Your task to perform on an android device: create a new album in the google photos Image 0: 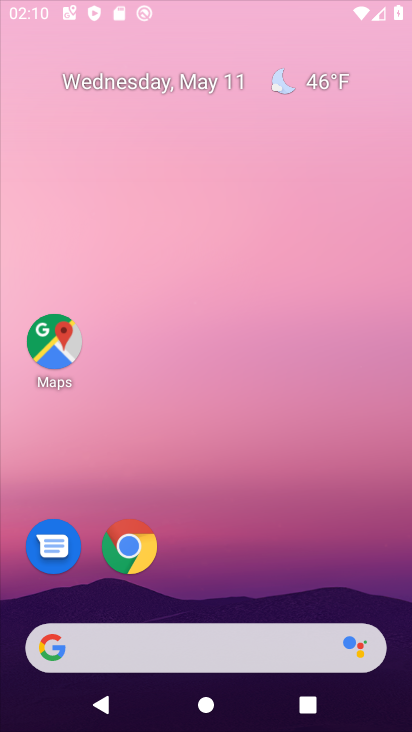
Step 0: click (296, 333)
Your task to perform on an android device: create a new album in the google photos Image 1: 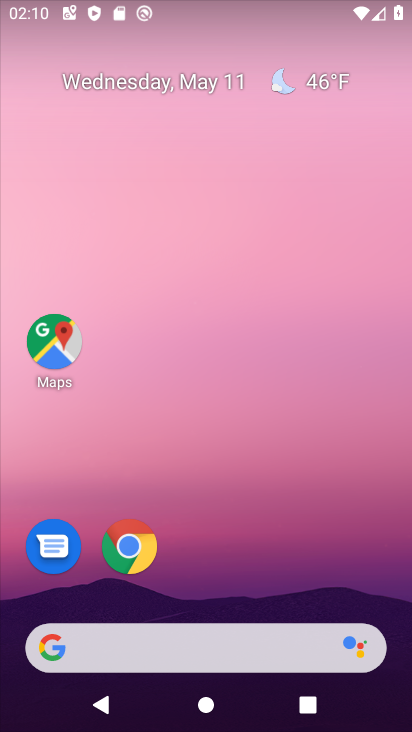
Step 1: drag from (185, 560) to (232, 271)
Your task to perform on an android device: create a new album in the google photos Image 2: 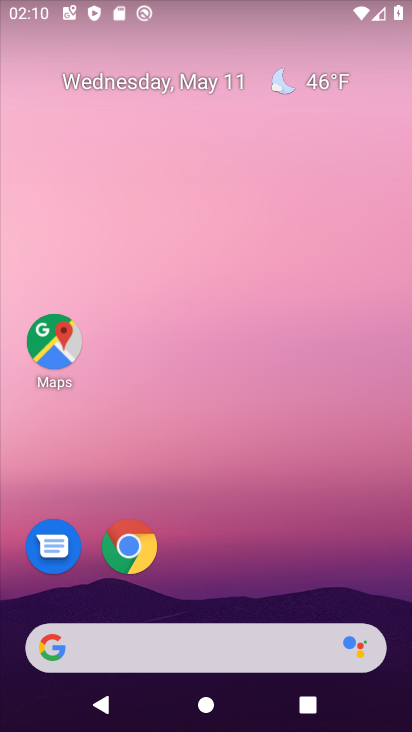
Step 2: drag from (214, 572) to (227, 275)
Your task to perform on an android device: create a new album in the google photos Image 3: 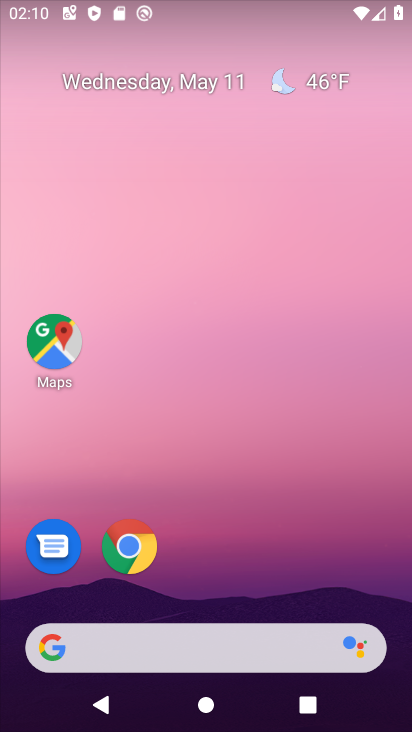
Step 3: drag from (217, 524) to (296, 156)
Your task to perform on an android device: create a new album in the google photos Image 4: 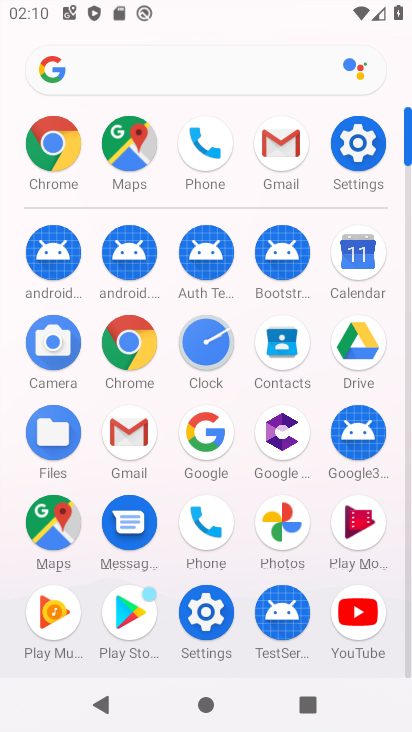
Step 4: click (293, 520)
Your task to perform on an android device: create a new album in the google photos Image 5: 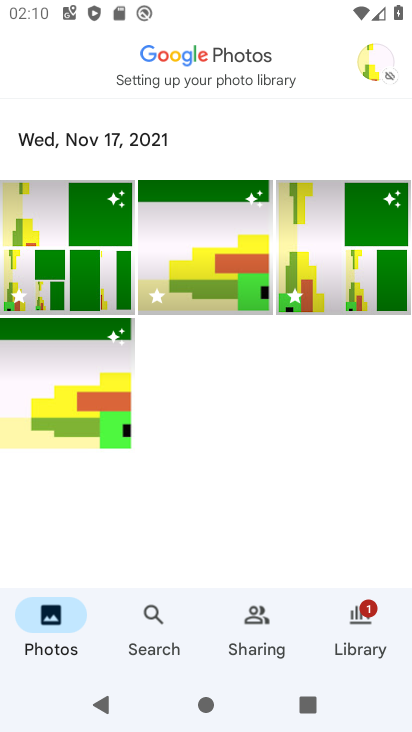
Step 5: click (350, 618)
Your task to perform on an android device: create a new album in the google photos Image 6: 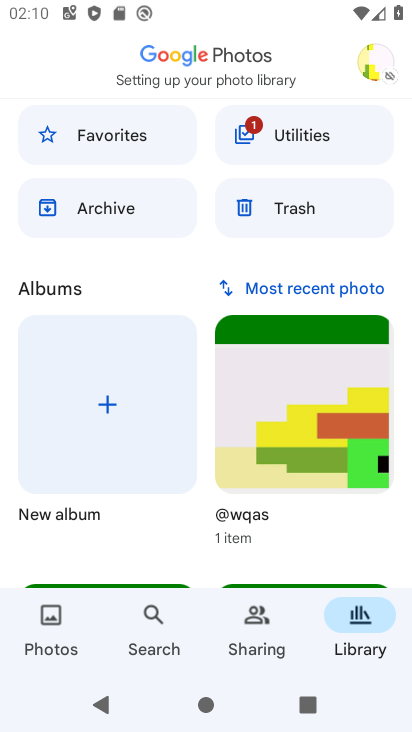
Step 6: drag from (202, 565) to (175, 258)
Your task to perform on an android device: create a new album in the google photos Image 7: 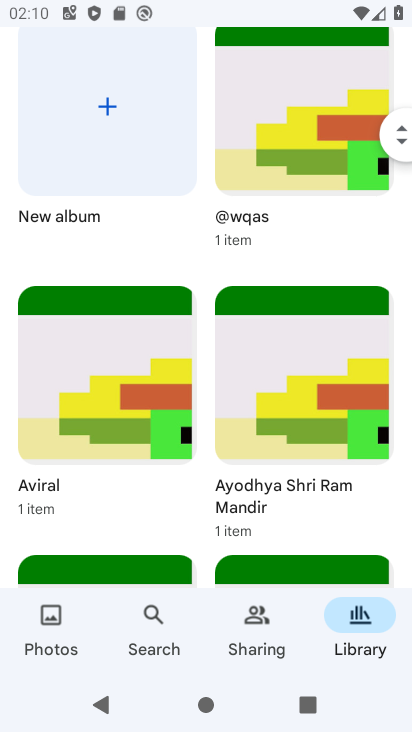
Step 7: drag from (177, 199) to (212, 539)
Your task to perform on an android device: create a new album in the google photos Image 8: 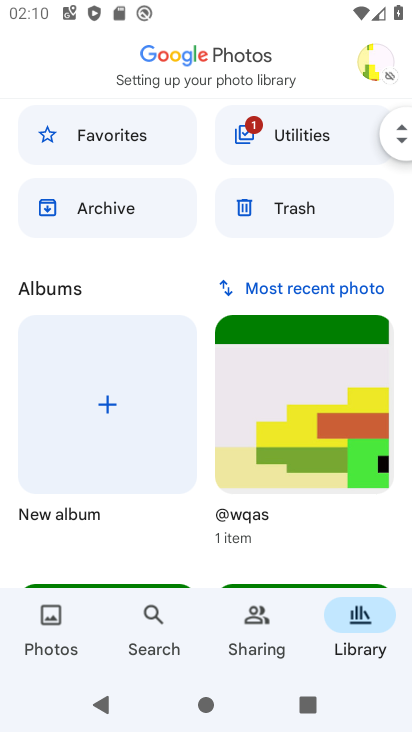
Step 8: click (91, 403)
Your task to perform on an android device: create a new album in the google photos Image 9: 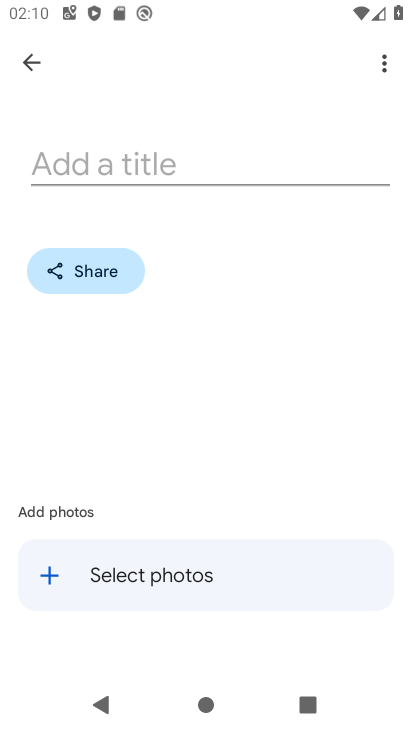
Step 9: click (89, 166)
Your task to perform on an android device: create a new album in the google photos Image 10: 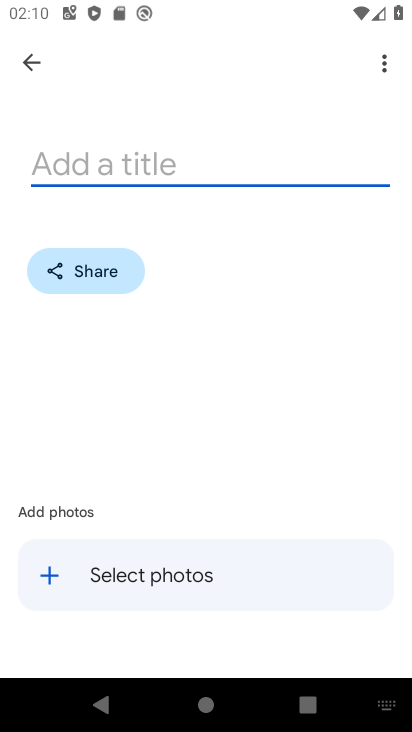
Step 10: type "msjsl"
Your task to perform on an android device: create a new album in the google photos Image 11: 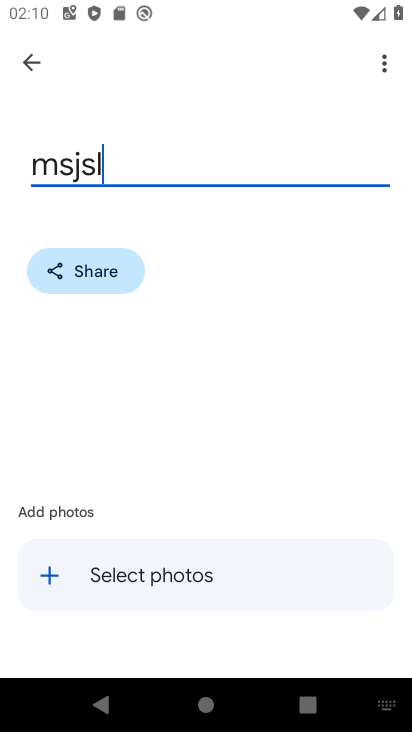
Step 11: click (47, 598)
Your task to perform on an android device: create a new album in the google photos Image 12: 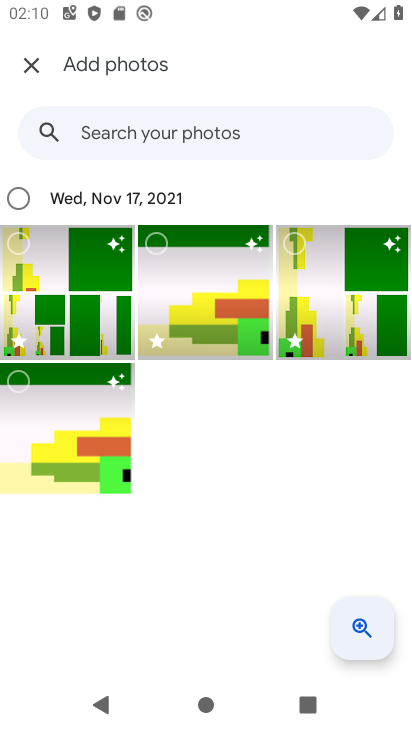
Step 12: click (116, 292)
Your task to perform on an android device: create a new album in the google photos Image 13: 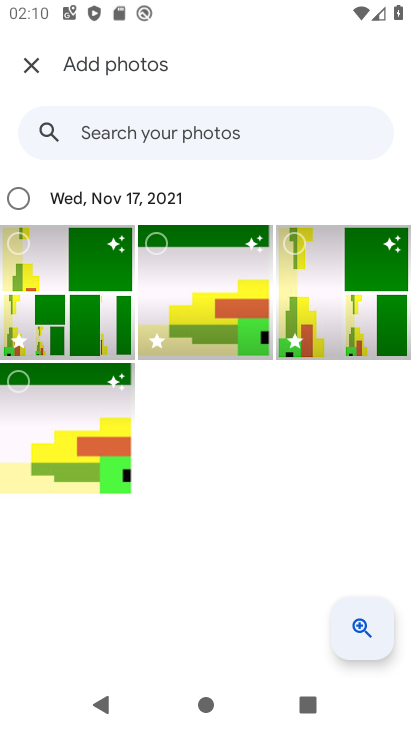
Step 13: click (225, 295)
Your task to perform on an android device: create a new album in the google photos Image 14: 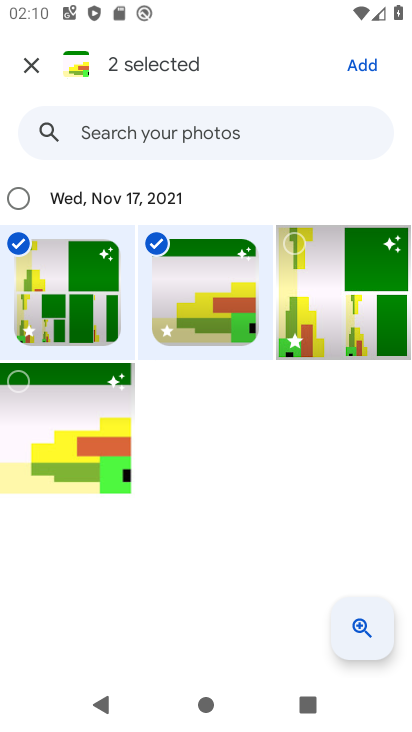
Step 14: click (353, 64)
Your task to perform on an android device: create a new album in the google photos Image 15: 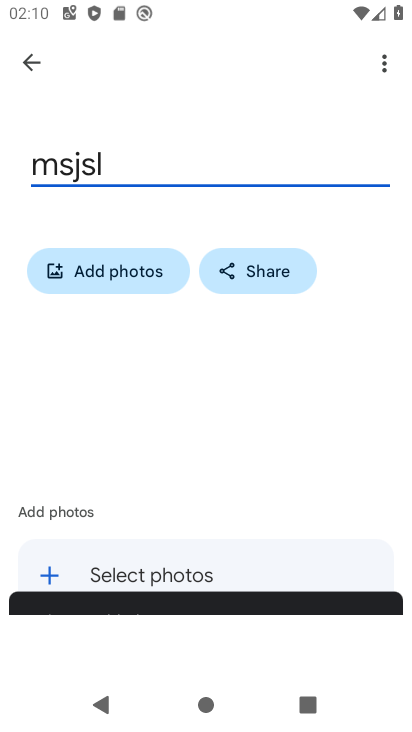
Step 15: task complete